Your task to perform on an android device: Show me the alarms in the clock app Image 0: 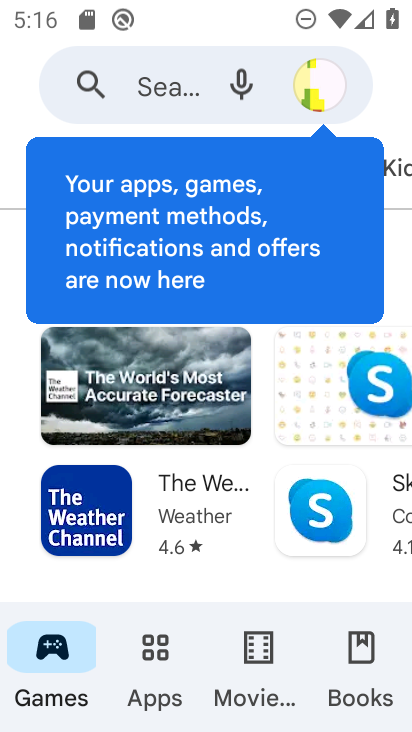
Step 0: press back button
Your task to perform on an android device: Show me the alarms in the clock app Image 1: 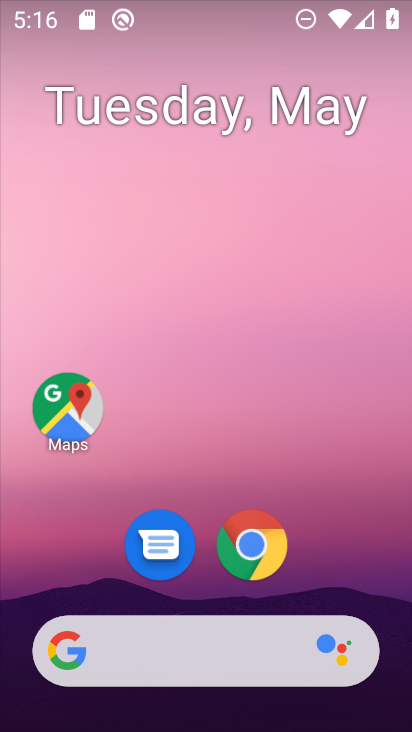
Step 1: drag from (322, 539) to (271, 26)
Your task to perform on an android device: Show me the alarms in the clock app Image 2: 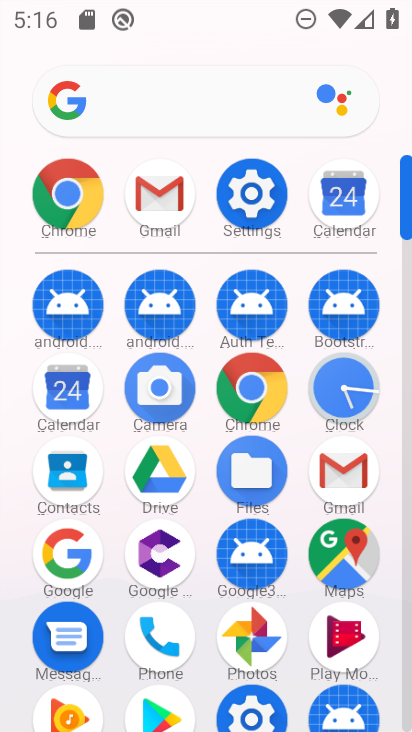
Step 2: drag from (18, 601) to (37, 203)
Your task to perform on an android device: Show me the alarms in the clock app Image 3: 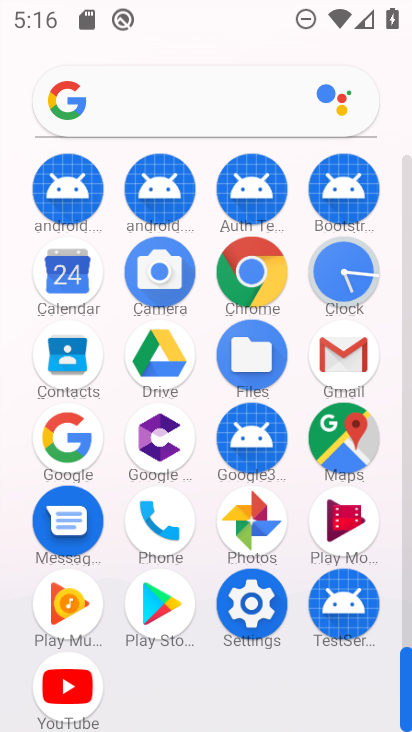
Step 3: drag from (17, 577) to (20, 288)
Your task to perform on an android device: Show me the alarms in the clock app Image 4: 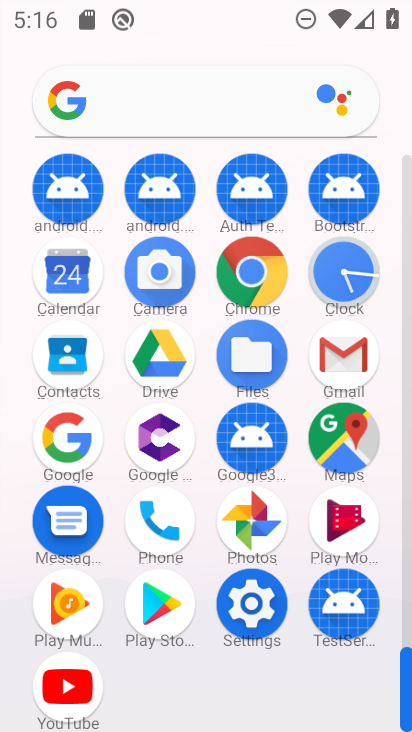
Step 4: click (342, 269)
Your task to perform on an android device: Show me the alarms in the clock app Image 5: 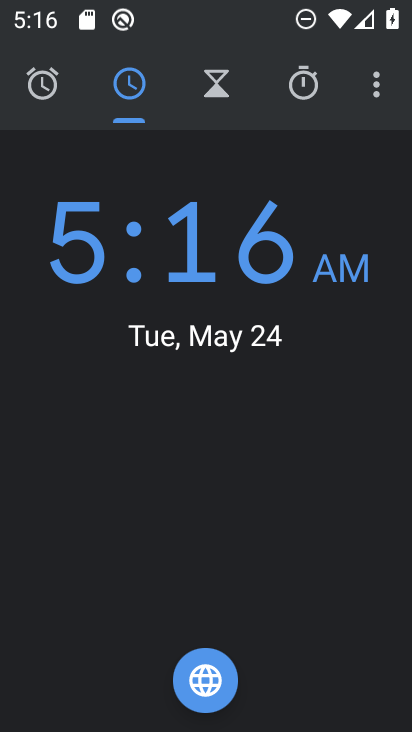
Step 5: click (51, 86)
Your task to perform on an android device: Show me the alarms in the clock app Image 6: 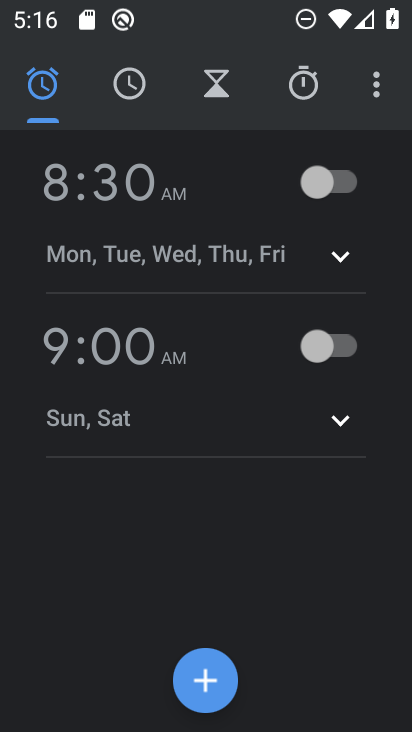
Step 6: task complete